Your task to perform on an android device: delete location history Image 0: 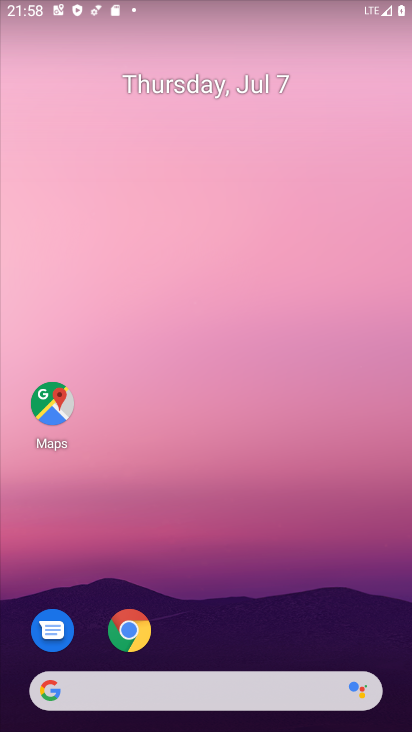
Step 0: drag from (184, 606) to (216, 162)
Your task to perform on an android device: delete location history Image 1: 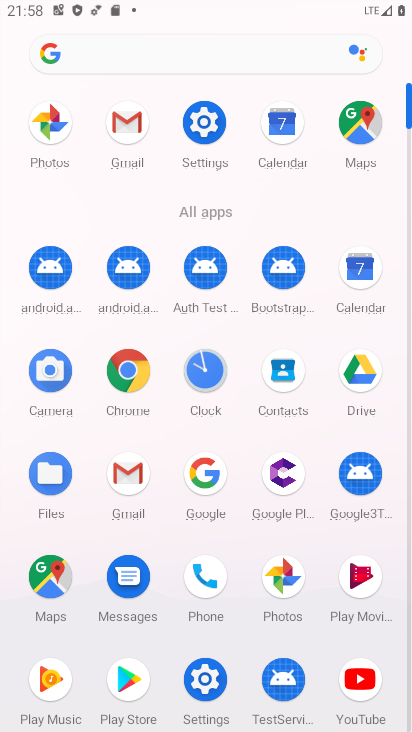
Step 1: click (200, 678)
Your task to perform on an android device: delete location history Image 2: 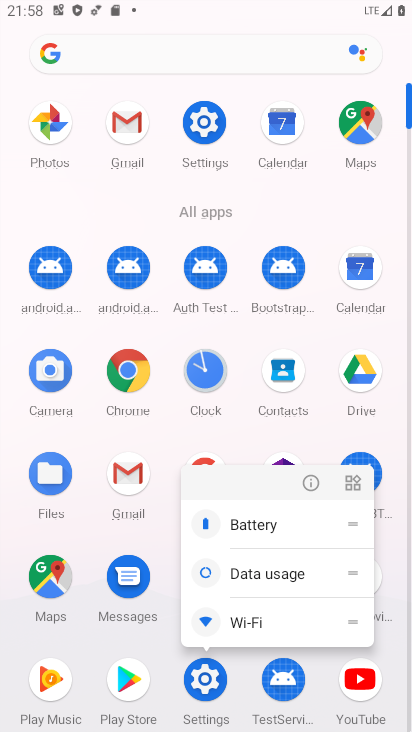
Step 2: click (305, 484)
Your task to perform on an android device: delete location history Image 3: 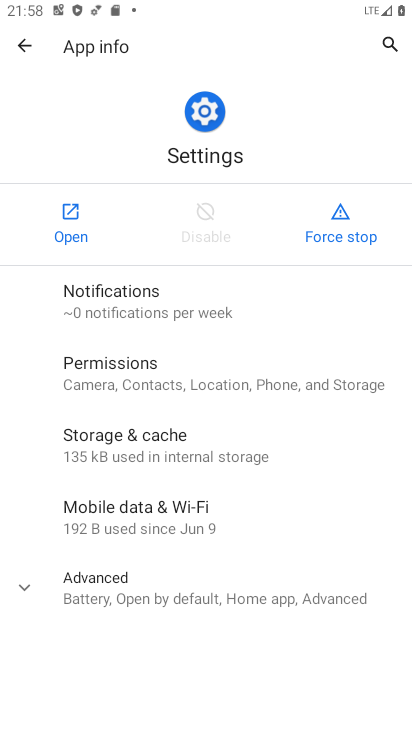
Step 3: click (53, 236)
Your task to perform on an android device: delete location history Image 4: 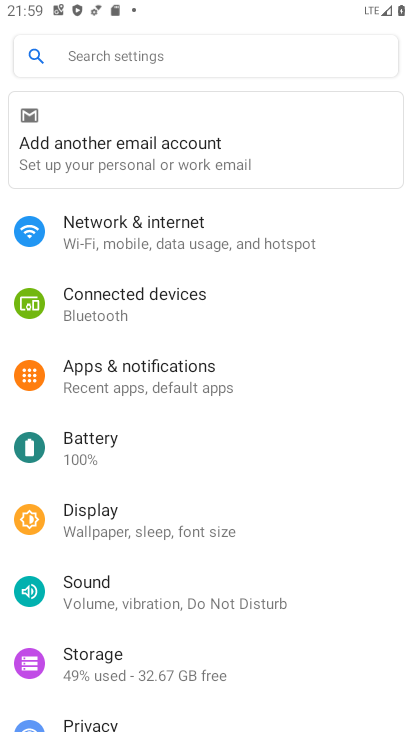
Step 4: drag from (181, 607) to (276, 113)
Your task to perform on an android device: delete location history Image 5: 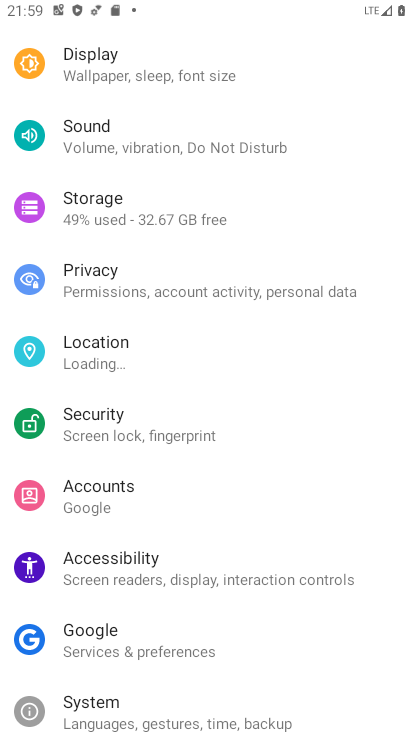
Step 5: drag from (159, 657) to (243, 254)
Your task to perform on an android device: delete location history Image 6: 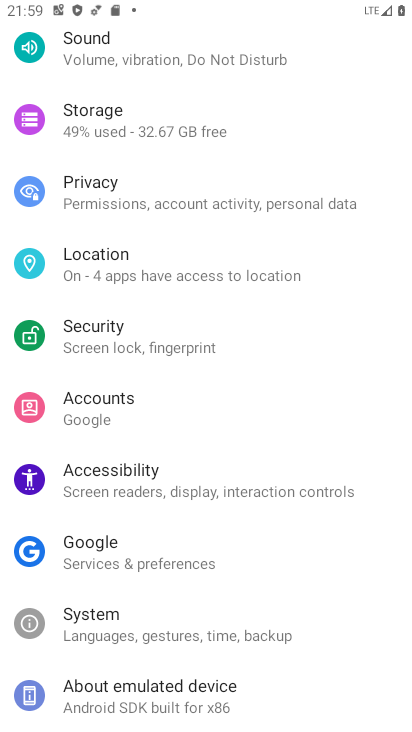
Step 6: click (142, 254)
Your task to perform on an android device: delete location history Image 7: 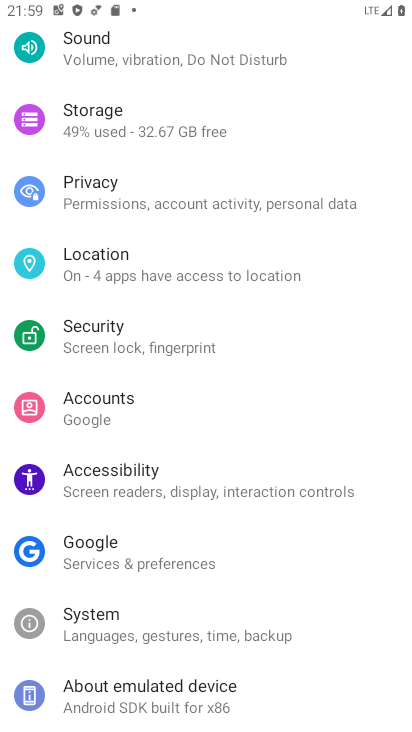
Step 7: click (142, 254)
Your task to perform on an android device: delete location history Image 8: 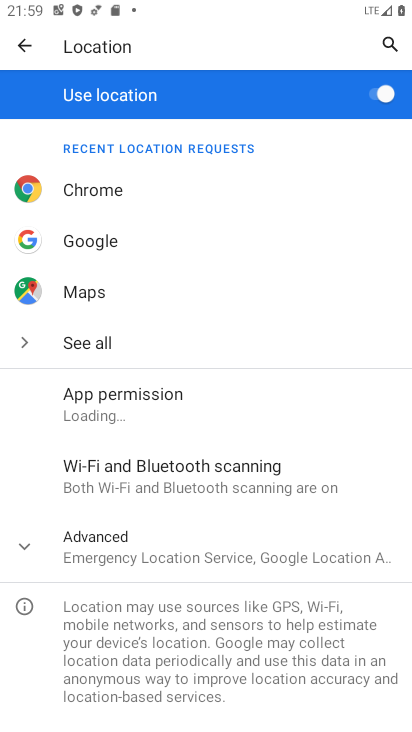
Step 8: click (177, 543)
Your task to perform on an android device: delete location history Image 9: 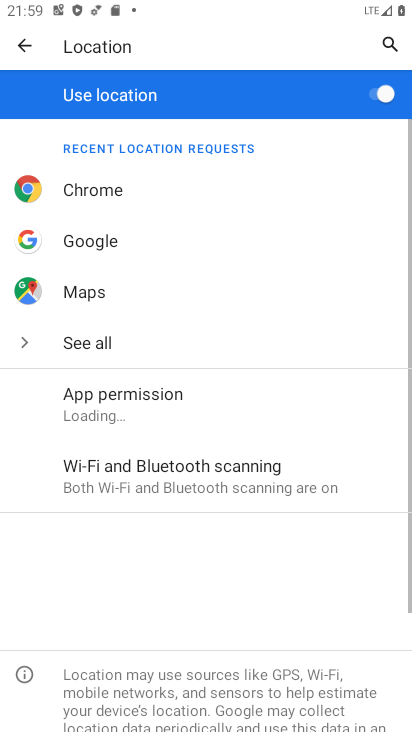
Step 9: drag from (196, 551) to (238, 228)
Your task to perform on an android device: delete location history Image 10: 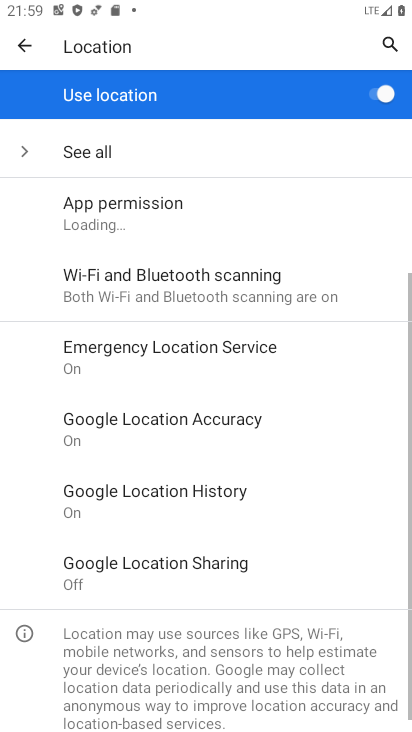
Step 10: click (193, 493)
Your task to perform on an android device: delete location history Image 11: 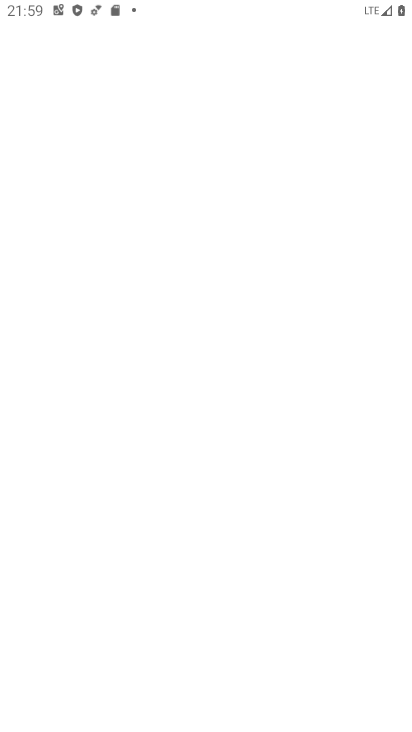
Step 11: drag from (243, 566) to (249, 137)
Your task to perform on an android device: delete location history Image 12: 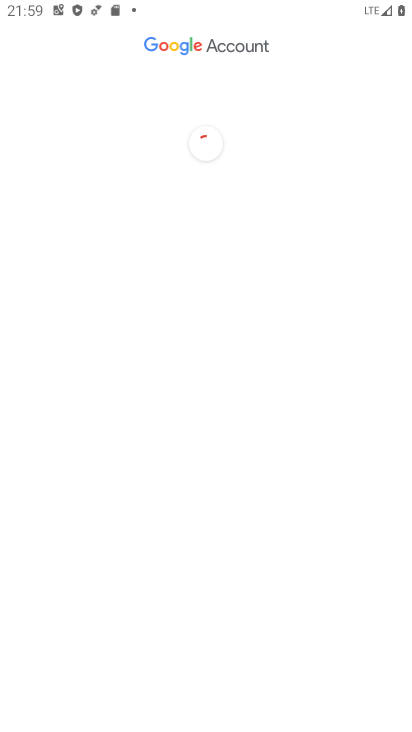
Step 12: drag from (184, 543) to (268, 81)
Your task to perform on an android device: delete location history Image 13: 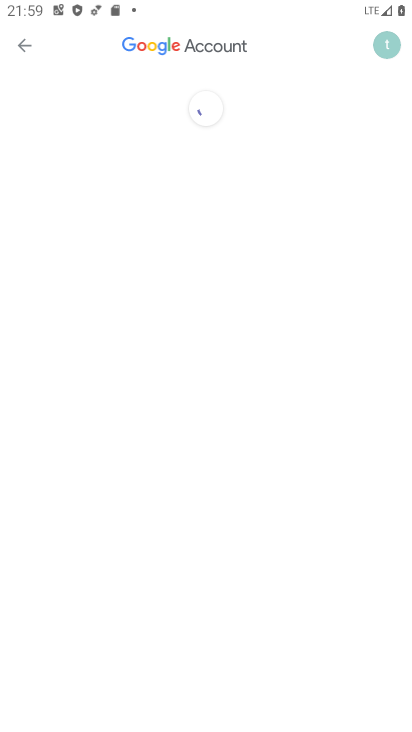
Step 13: drag from (152, 451) to (234, 71)
Your task to perform on an android device: delete location history Image 14: 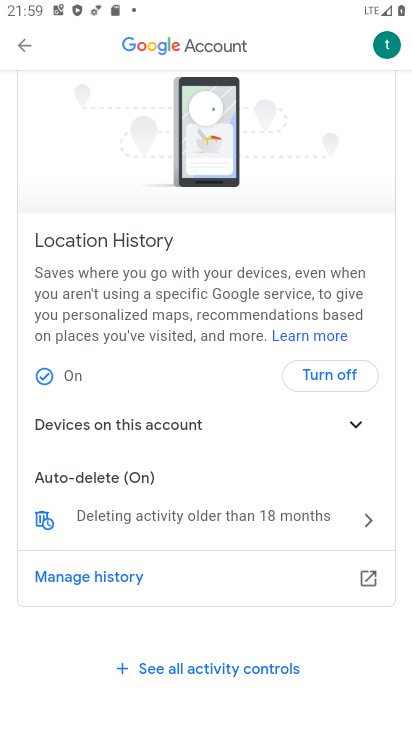
Step 14: drag from (242, 473) to (334, 59)
Your task to perform on an android device: delete location history Image 15: 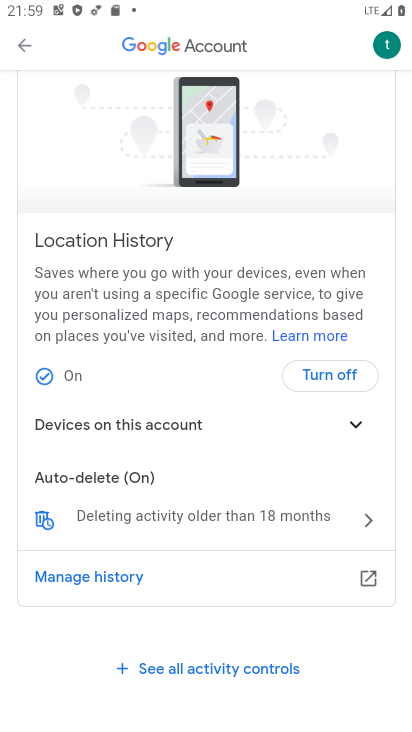
Step 15: drag from (138, 529) to (174, 197)
Your task to perform on an android device: delete location history Image 16: 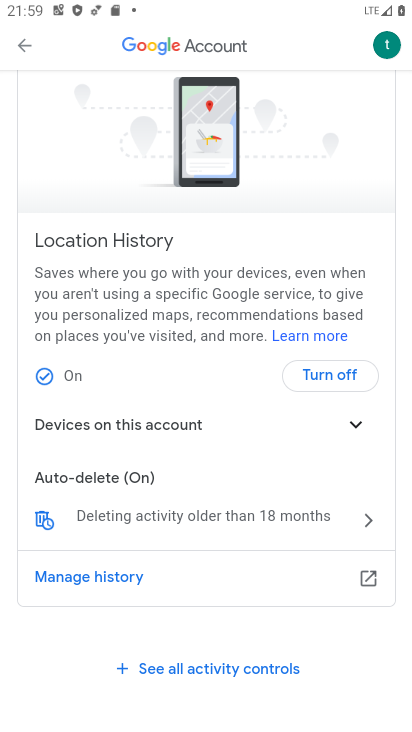
Step 16: drag from (217, 330) to (217, 256)
Your task to perform on an android device: delete location history Image 17: 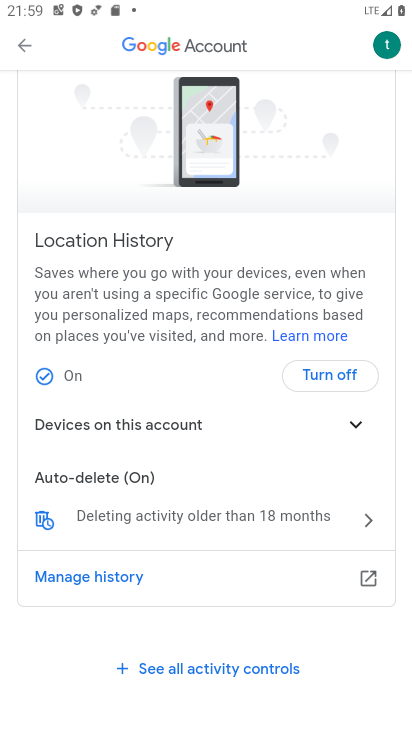
Step 17: click (66, 518)
Your task to perform on an android device: delete location history Image 18: 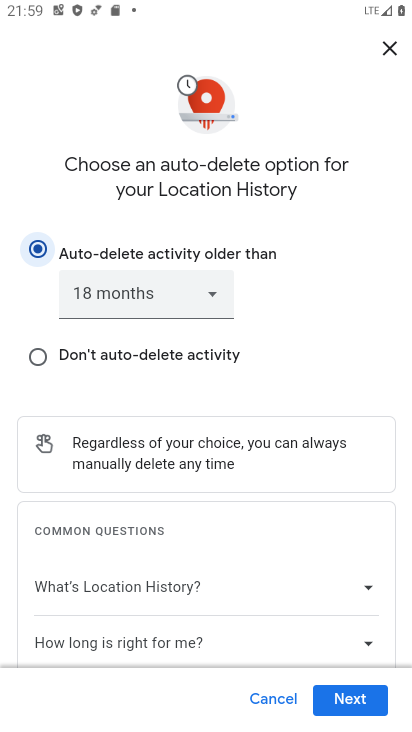
Step 18: drag from (180, 431) to (293, 0)
Your task to perform on an android device: delete location history Image 19: 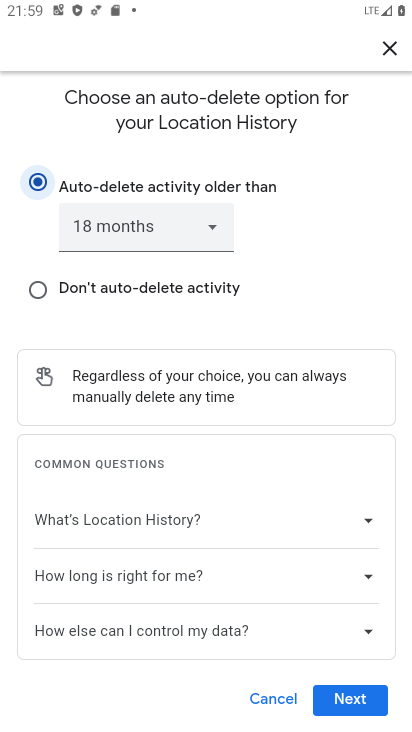
Step 19: click (325, 694)
Your task to perform on an android device: delete location history Image 20: 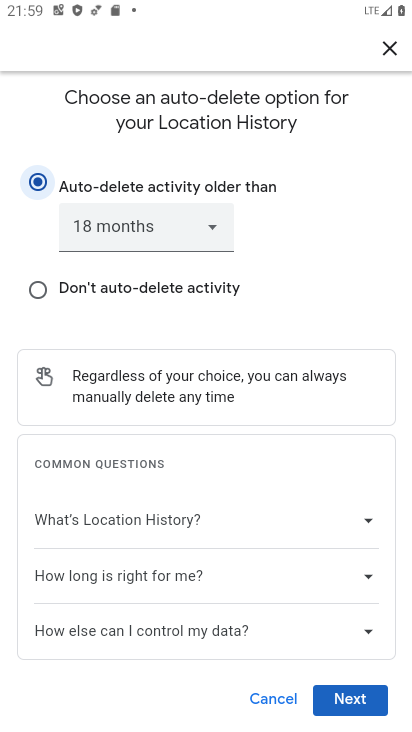
Step 20: click (336, 700)
Your task to perform on an android device: delete location history Image 21: 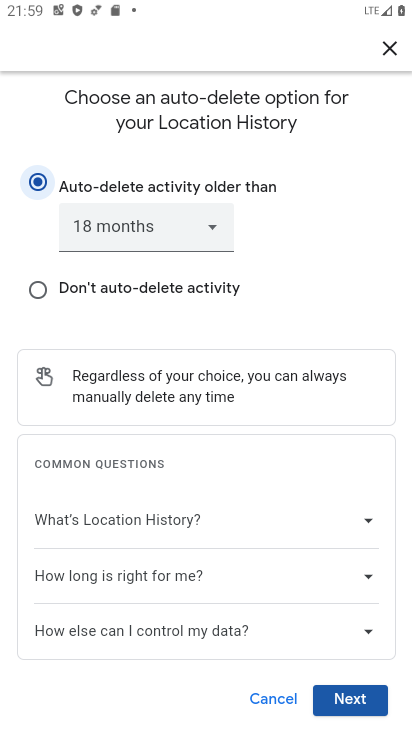
Step 21: click (337, 701)
Your task to perform on an android device: delete location history Image 22: 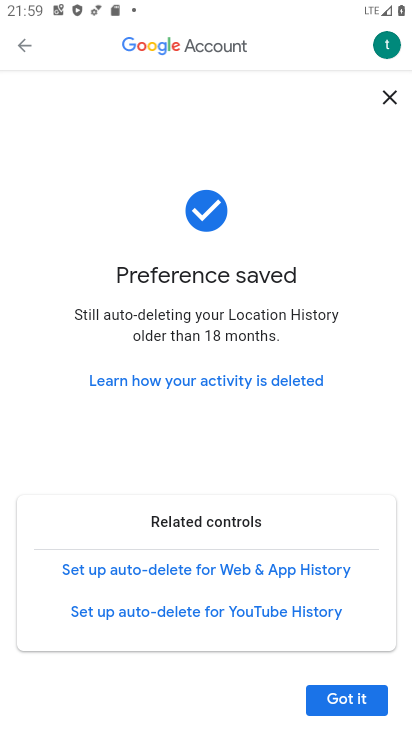
Step 22: click (365, 684)
Your task to perform on an android device: delete location history Image 23: 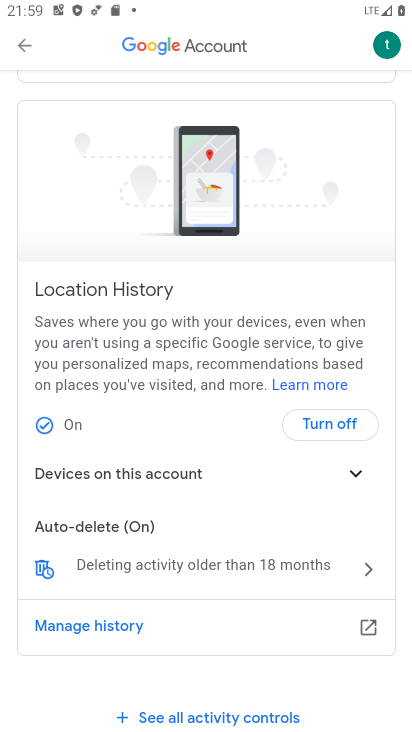
Step 23: task complete